Your task to perform on an android device: Open notification settings Image 0: 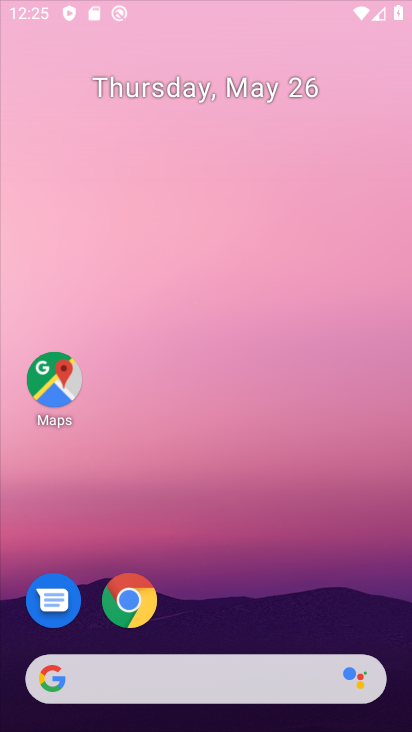
Step 0: drag from (207, 627) to (335, 84)
Your task to perform on an android device: Open notification settings Image 1: 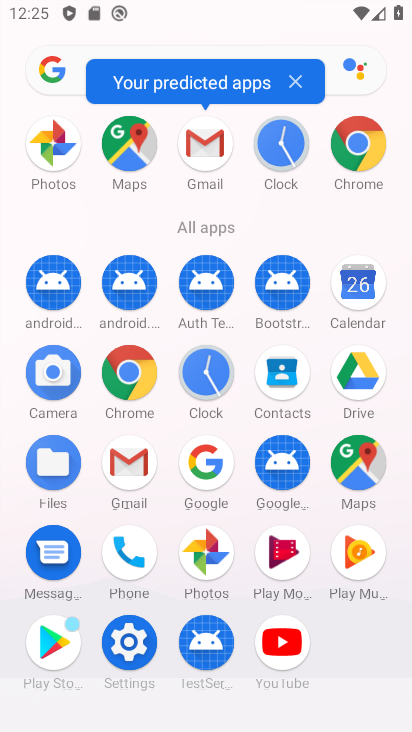
Step 1: click (134, 652)
Your task to perform on an android device: Open notification settings Image 2: 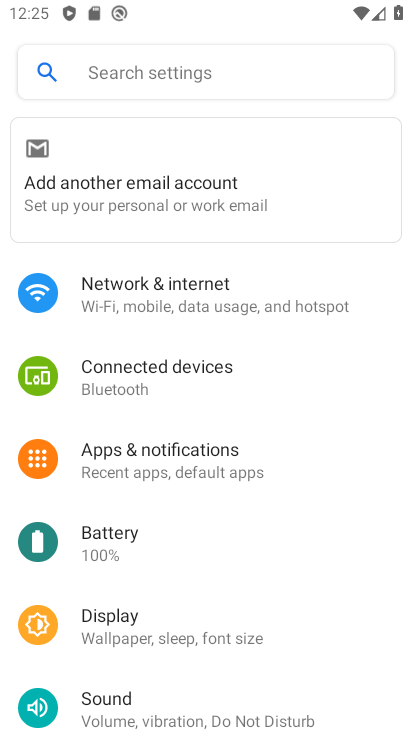
Step 2: drag from (134, 646) to (198, 602)
Your task to perform on an android device: Open notification settings Image 3: 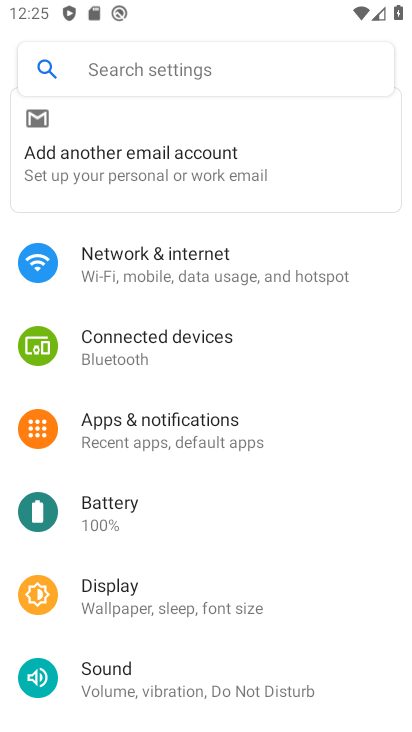
Step 3: click (218, 442)
Your task to perform on an android device: Open notification settings Image 4: 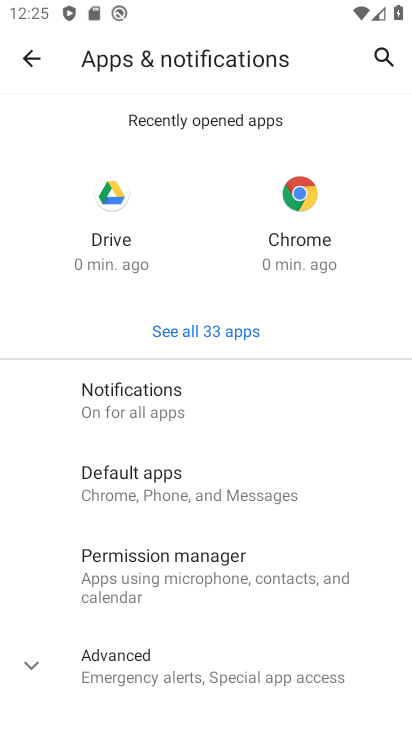
Step 4: click (225, 409)
Your task to perform on an android device: Open notification settings Image 5: 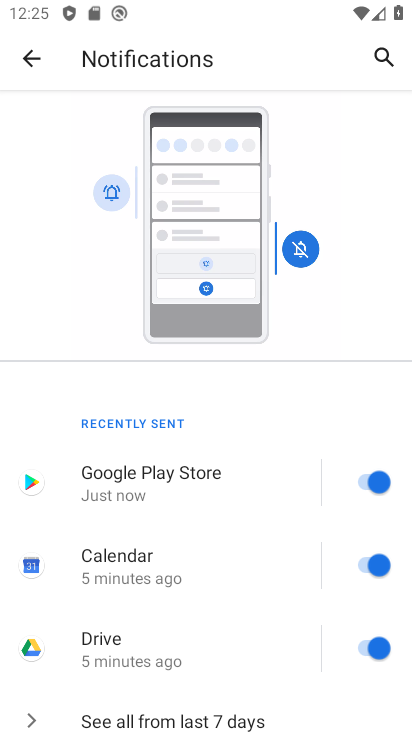
Step 5: task complete